Your task to perform on an android device: delete browsing data in the chrome app Image 0: 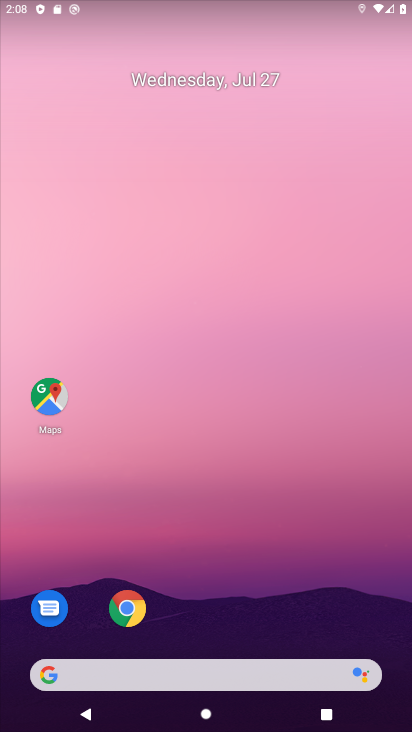
Step 0: click (115, 624)
Your task to perform on an android device: delete browsing data in the chrome app Image 1: 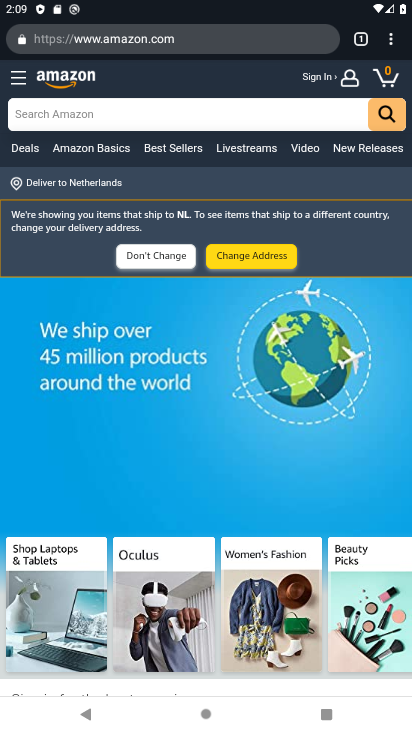
Step 1: press home button
Your task to perform on an android device: delete browsing data in the chrome app Image 2: 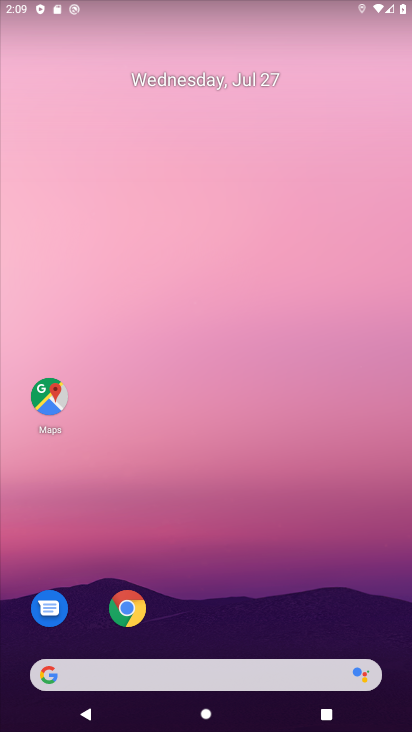
Step 2: click (133, 608)
Your task to perform on an android device: delete browsing data in the chrome app Image 3: 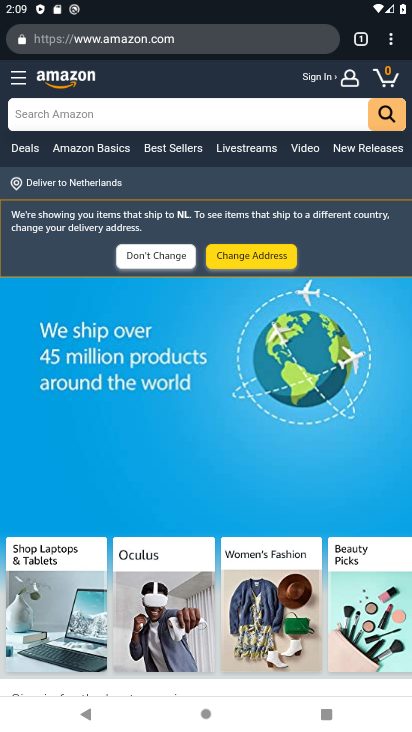
Step 3: click (390, 43)
Your task to perform on an android device: delete browsing data in the chrome app Image 4: 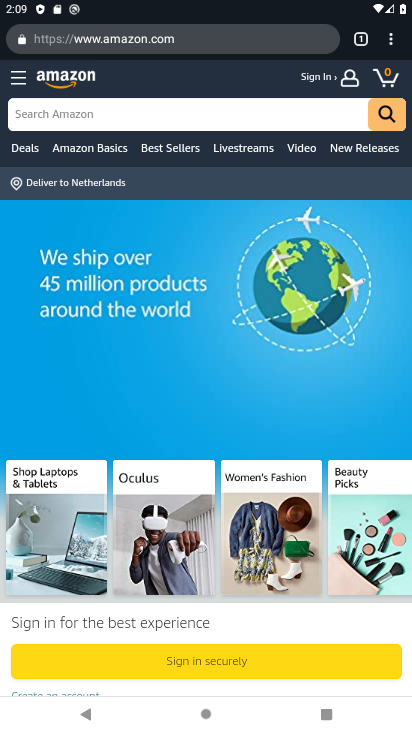
Step 4: click (389, 35)
Your task to perform on an android device: delete browsing data in the chrome app Image 5: 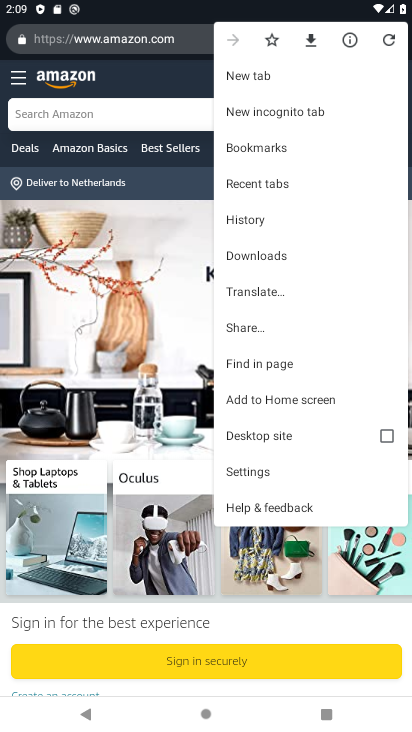
Step 5: click (258, 478)
Your task to perform on an android device: delete browsing data in the chrome app Image 6: 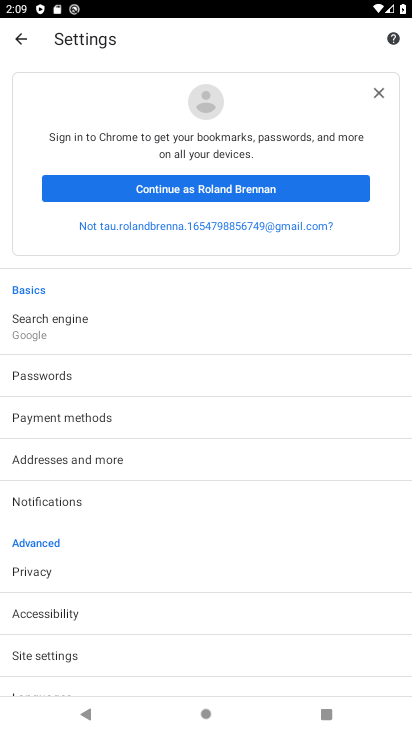
Step 6: click (61, 569)
Your task to perform on an android device: delete browsing data in the chrome app Image 7: 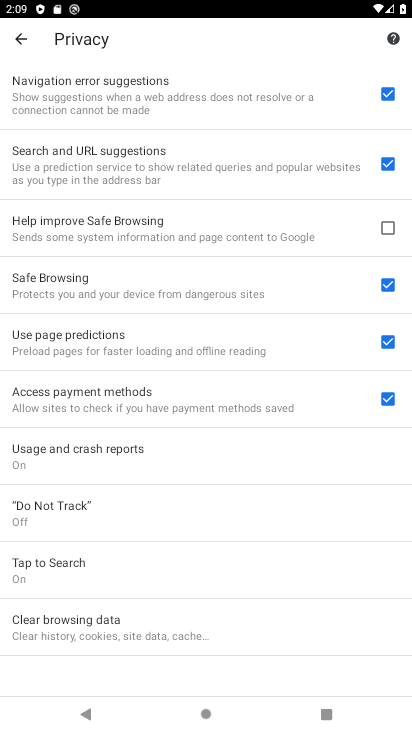
Step 7: click (93, 619)
Your task to perform on an android device: delete browsing data in the chrome app Image 8: 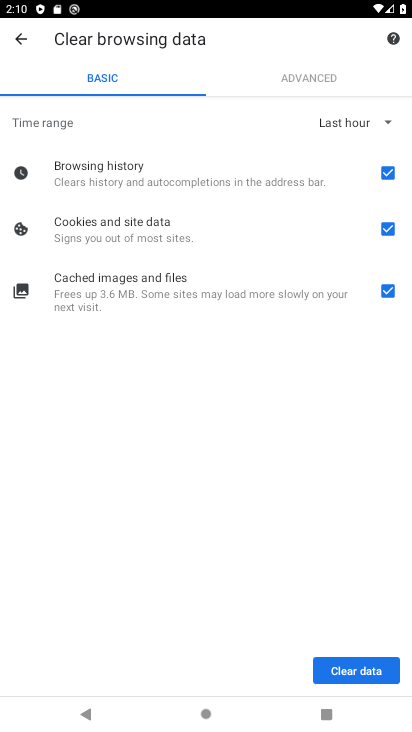
Step 8: click (361, 675)
Your task to perform on an android device: delete browsing data in the chrome app Image 9: 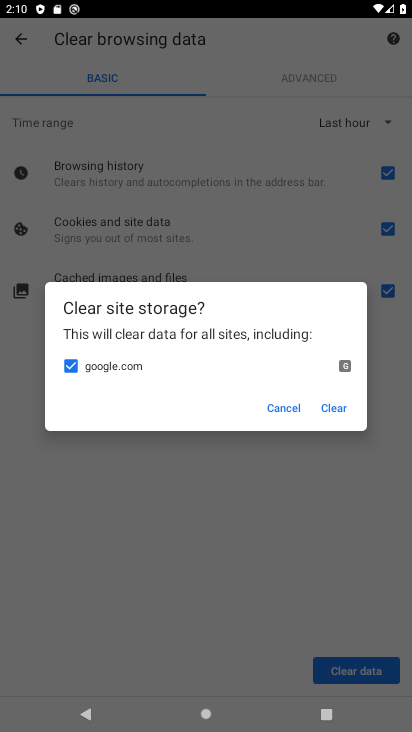
Step 9: click (340, 406)
Your task to perform on an android device: delete browsing data in the chrome app Image 10: 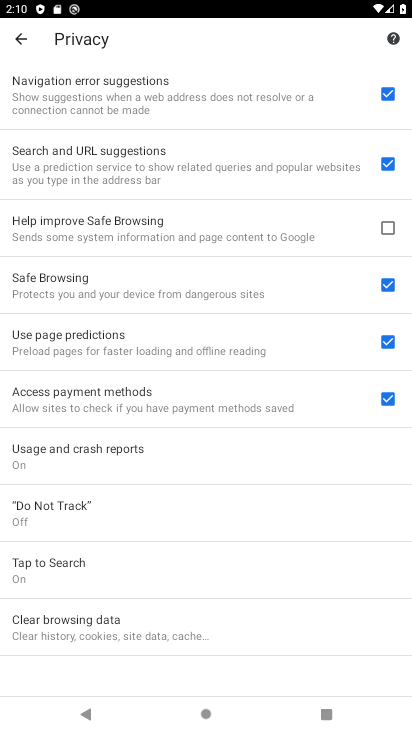
Step 10: task complete